Your task to perform on an android device: turn on airplane mode Image 0: 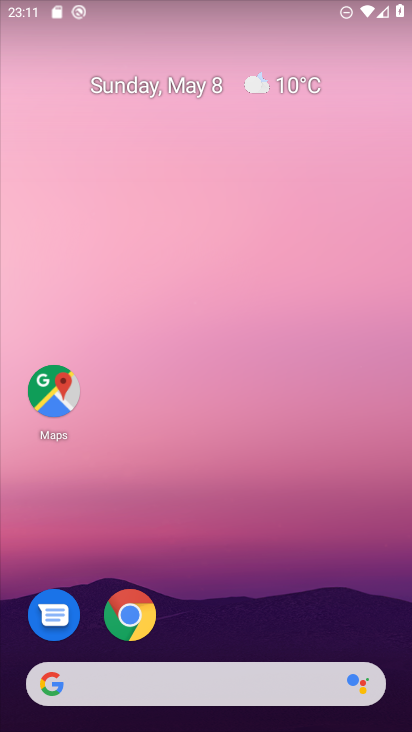
Step 0: drag from (282, 7) to (189, 429)
Your task to perform on an android device: turn on airplane mode Image 1: 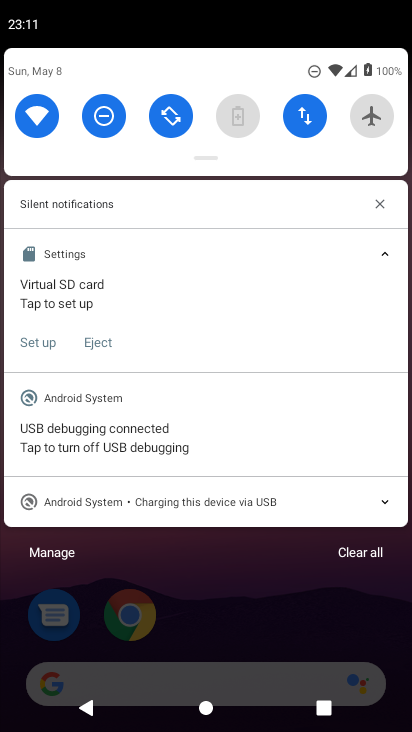
Step 1: click (374, 116)
Your task to perform on an android device: turn on airplane mode Image 2: 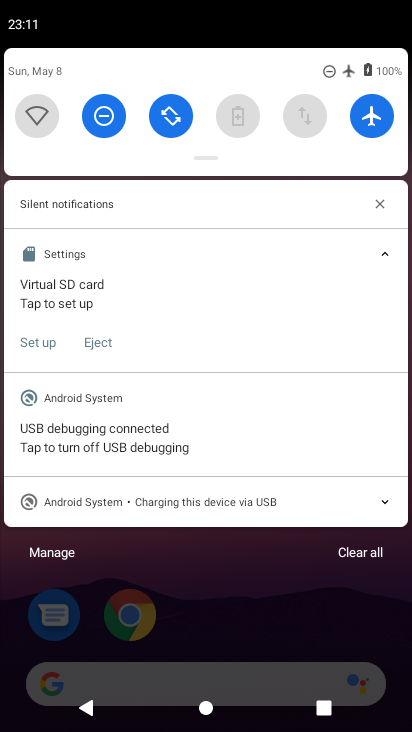
Step 2: task complete